Your task to perform on an android device: Open Google Chrome and open the bookmarks view Image 0: 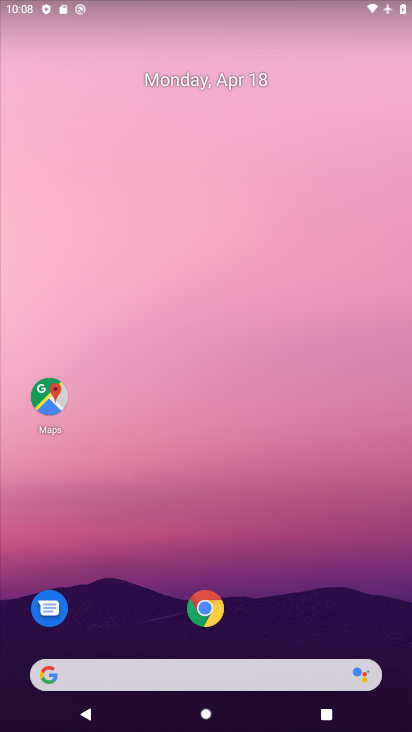
Step 0: press home button
Your task to perform on an android device: Open Google Chrome and open the bookmarks view Image 1: 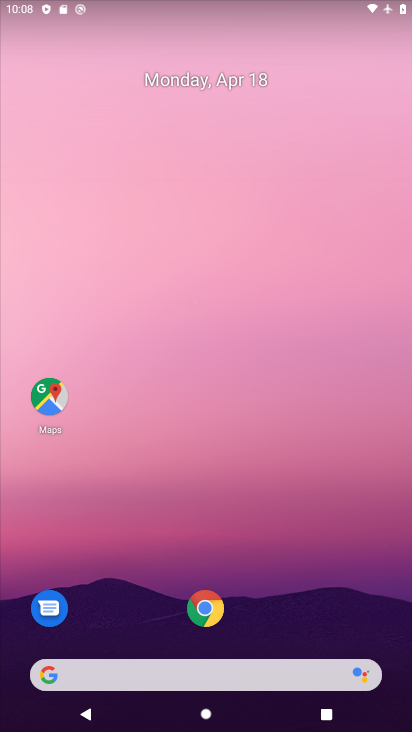
Step 1: click (201, 617)
Your task to perform on an android device: Open Google Chrome and open the bookmarks view Image 2: 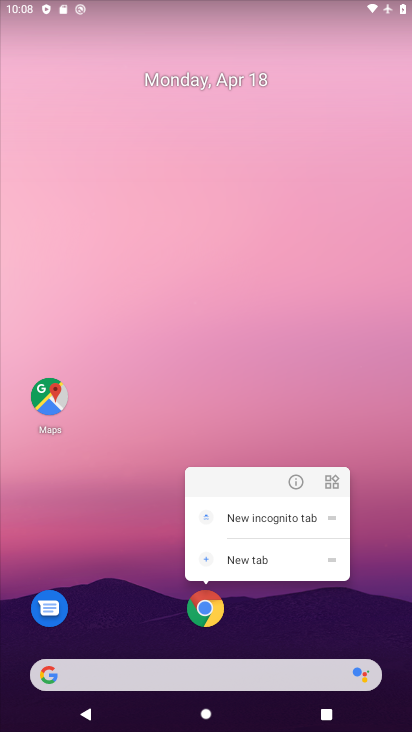
Step 2: click (201, 617)
Your task to perform on an android device: Open Google Chrome and open the bookmarks view Image 3: 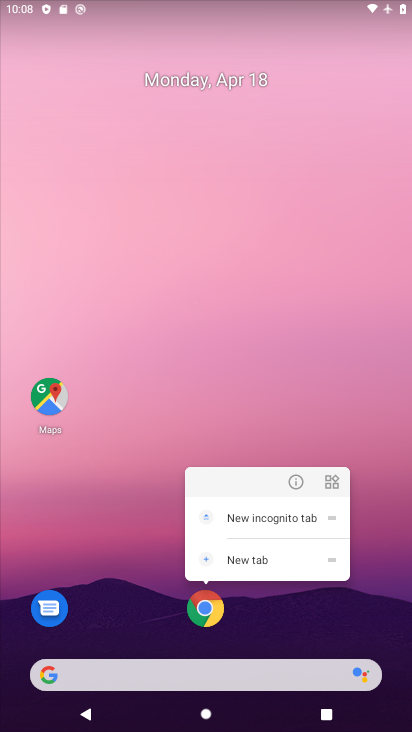
Step 3: click (201, 617)
Your task to perform on an android device: Open Google Chrome and open the bookmarks view Image 4: 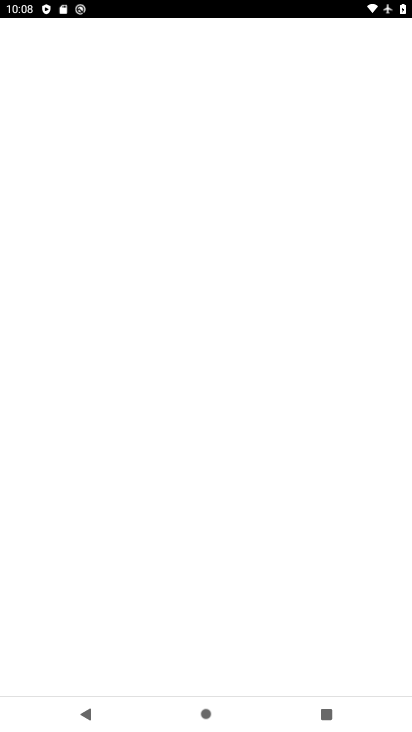
Step 4: click (201, 617)
Your task to perform on an android device: Open Google Chrome and open the bookmarks view Image 5: 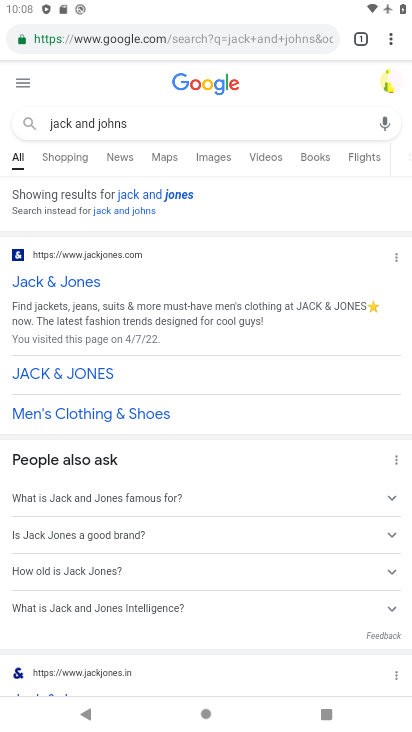
Step 5: drag from (388, 37) to (262, 181)
Your task to perform on an android device: Open Google Chrome and open the bookmarks view Image 6: 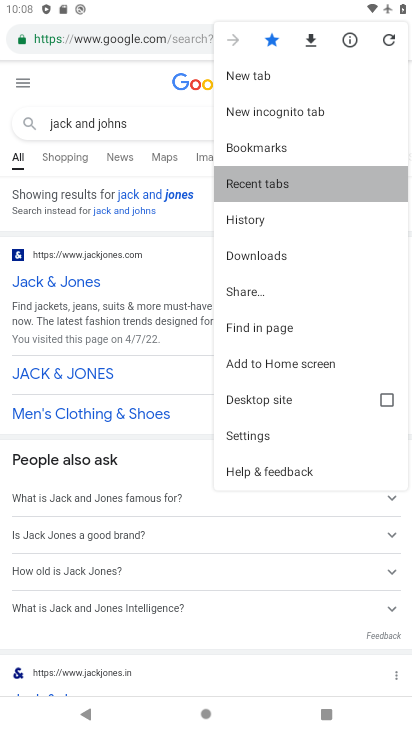
Step 6: click (270, 155)
Your task to perform on an android device: Open Google Chrome and open the bookmarks view Image 7: 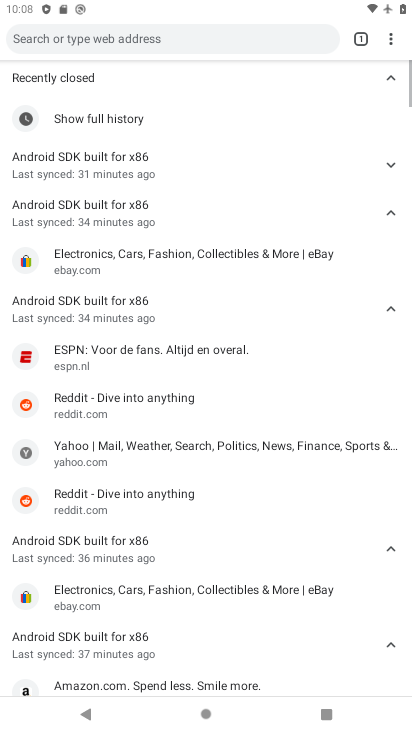
Step 7: task complete